Your task to perform on an android device: visit the assistant section in the google photos Image 0: 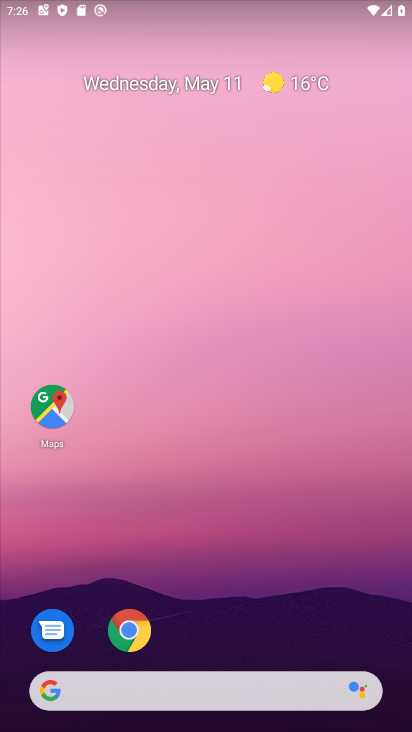
Step 0: drag from (398, 440) to (390, 14)
Your task to perform on an android device: visit the assistant section in the google photos Image 1: 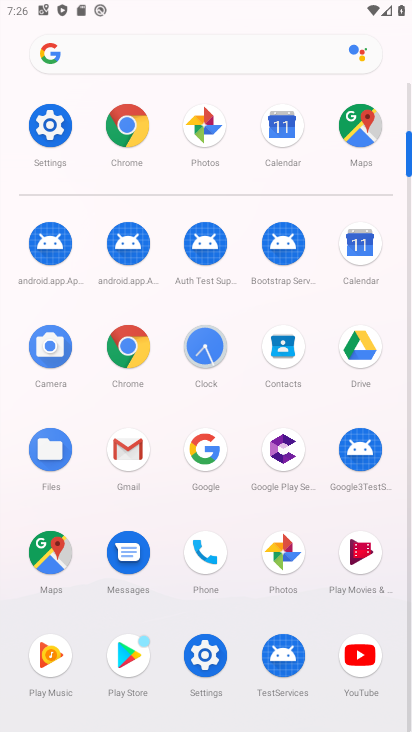
Step 1: click (204, 130)
Your task to perform on an android device: visit the assistant section in the google photos Image 2: 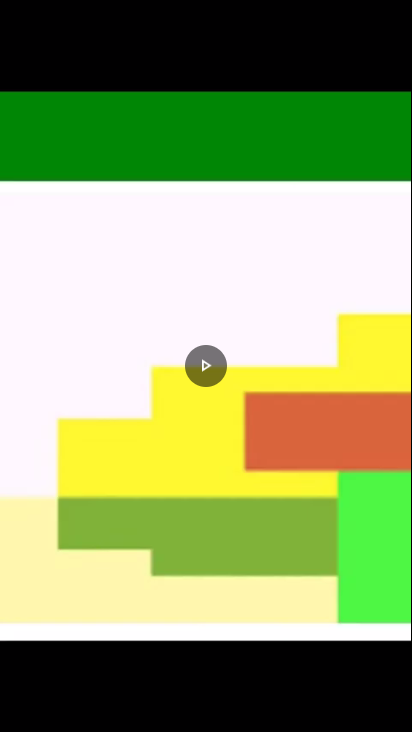
Step 2: task complete